Your task to perform on an android device: refresh tabs in the chrome app Image 0: 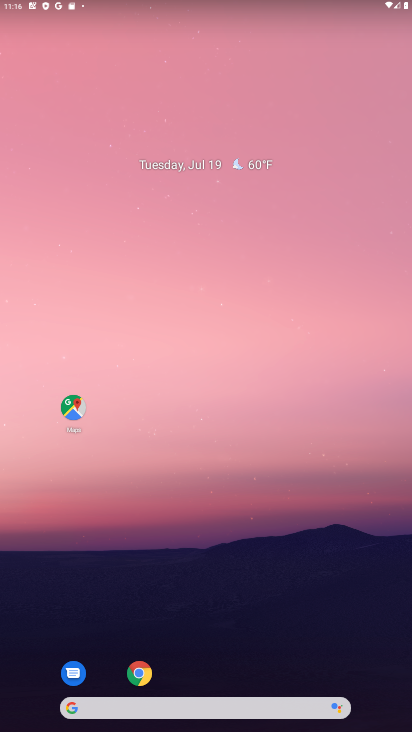
Step 0: click (140, 673)
Your task to perform on an android device: refresh tabs in the chrome app Image 1: 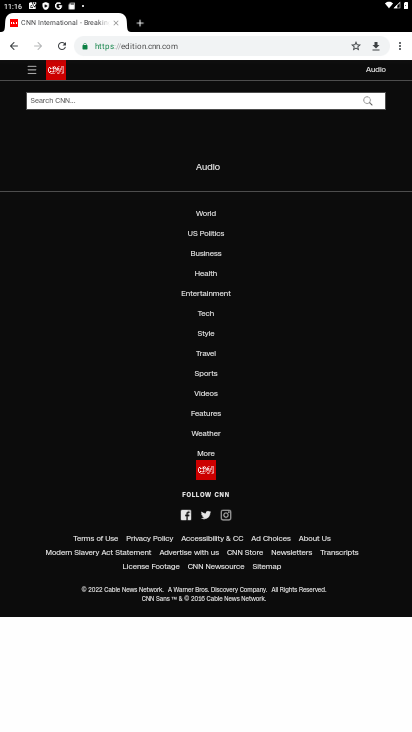
Step 1: click (401, 49)
Your task to perform on an android device: refresh tabs in the chrome app Image 2: 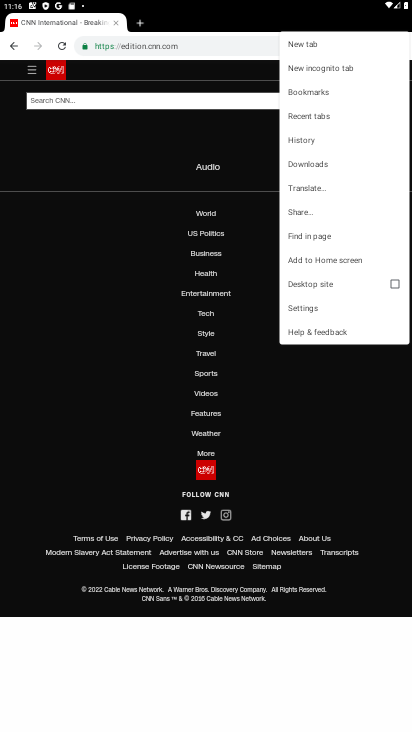
Step 2: click (62, 46)
Your task to perform on an android device: refresh tabs in the chrome app Image 3: 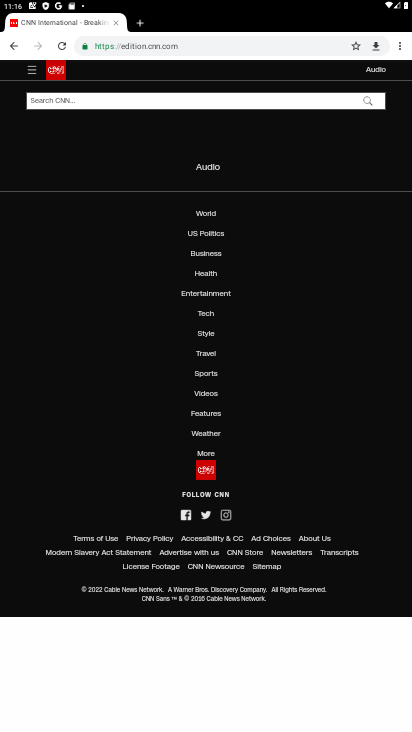
Step 3: click (62, 46)
Your task to perform on an android device: refresh tabs in the chrome app Image 4: 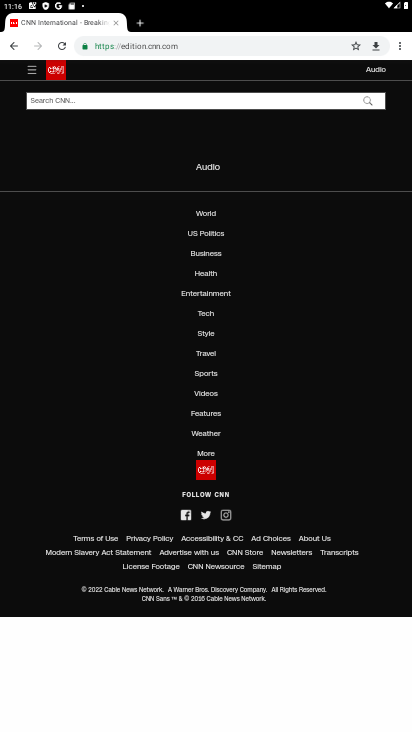
Step 4: task complete